Your task to perform on an android device: turn vacation reply on in the gmail app Image 0: 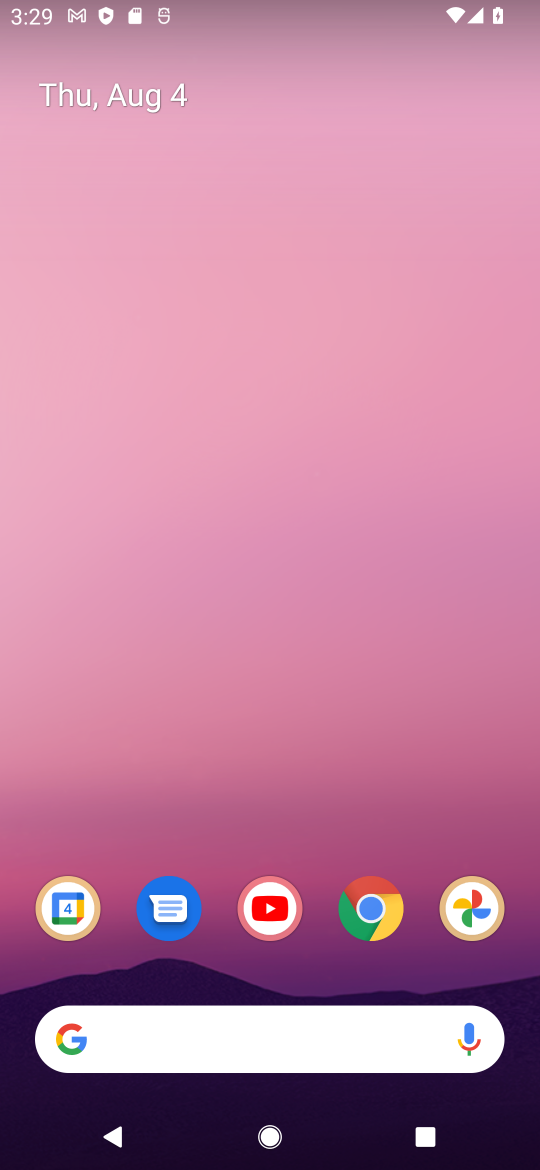
Step 0: drag from (348, 973) to (348, 290)
Your task to perform on an android device: turn vacation reply on in the gmail app Image 1: 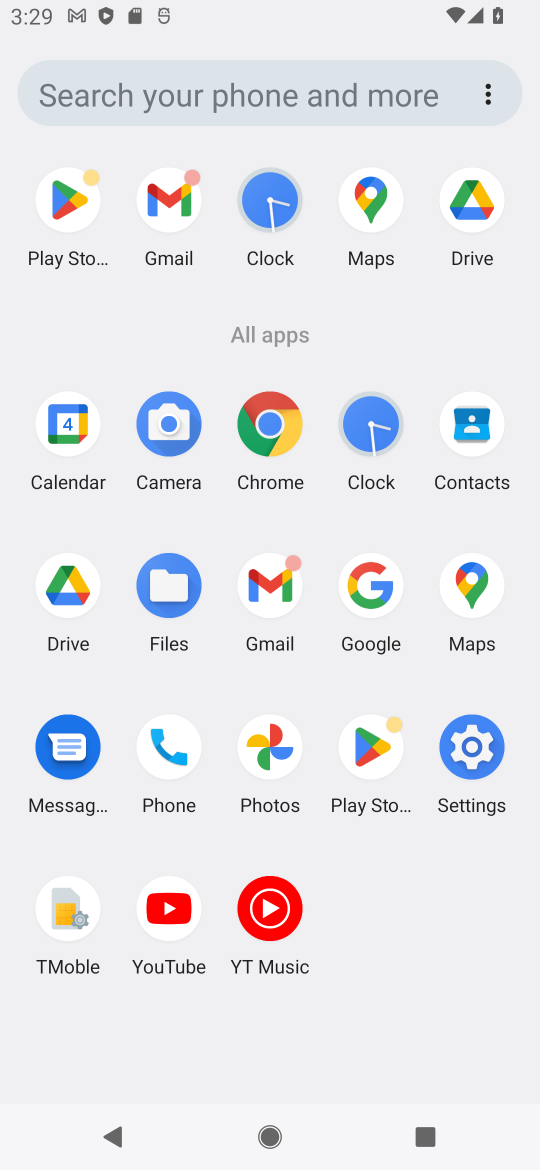
Step 1: click (264, 595)
Your task to perform on an android device: turn vacation reply on in the gmail app Image 2: 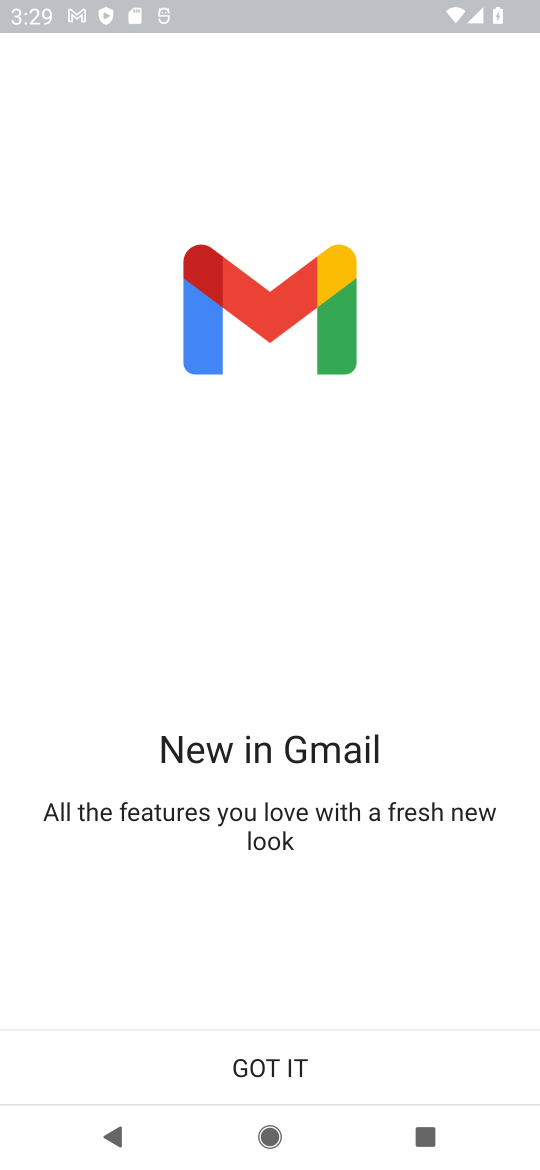
Step 2: click (394, 1082)
Your task to perform on an android device: turn vacation reply on in the gmail app Image 3: 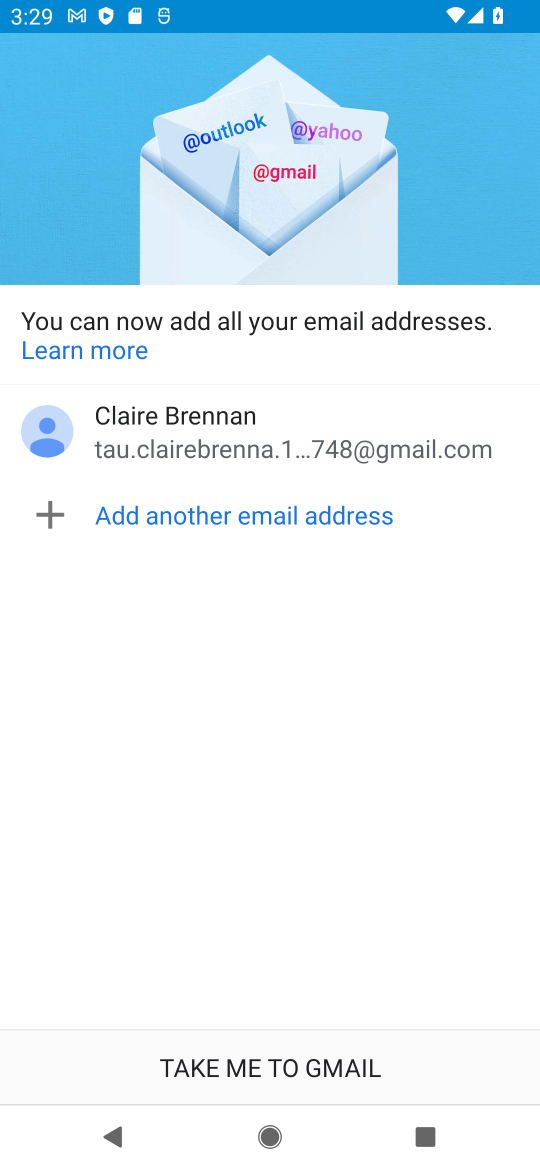
Step 3: click (394, 1082)
Your task to perform on an android device: turn vacation reply on in the gmail app Image 4: 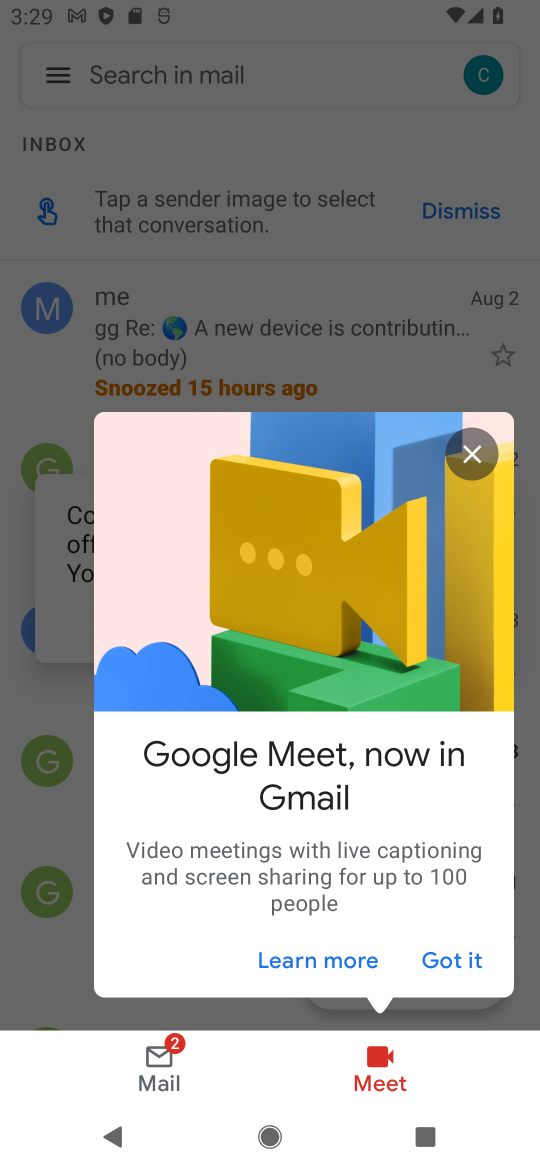
Step 4: click (465, 459)
Your task to perform on an android device: turn vacation reply on in the gmail app Image 5: 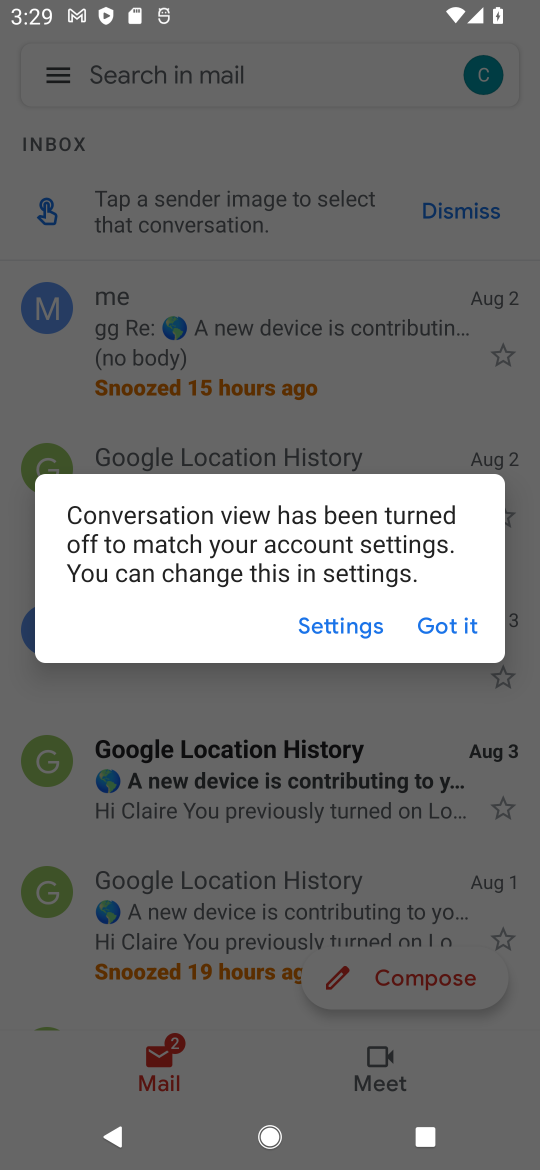
Step 5: click (455, 634)
Your task to perform on an android device: turn vacation reply on in the gmail app Image 6: 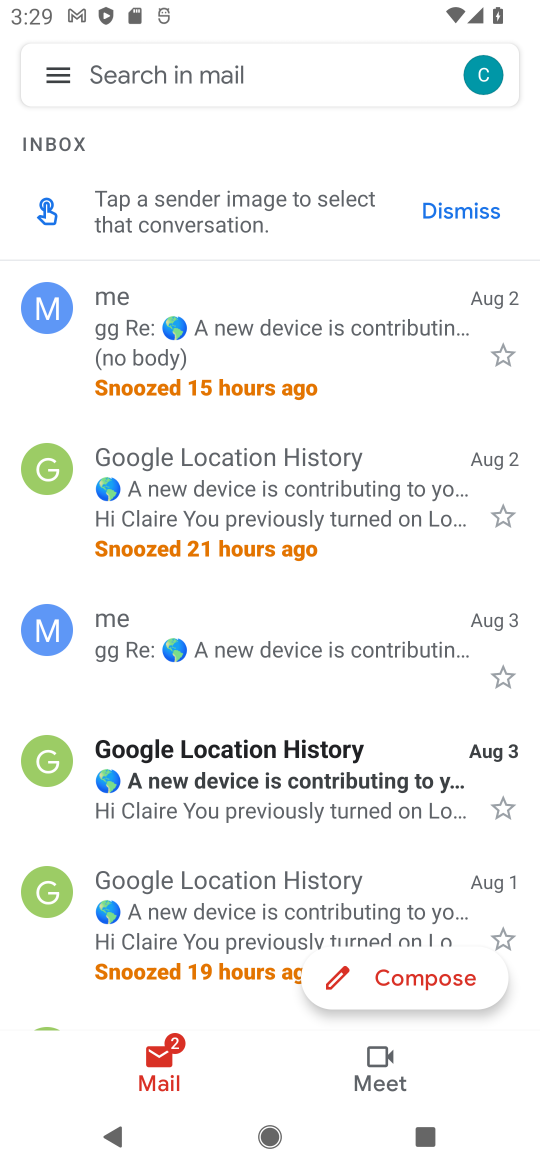
Step 6: click (52, 77)
Your task to perform on an android device: turn vacation reply on in the gmail app Image 7: 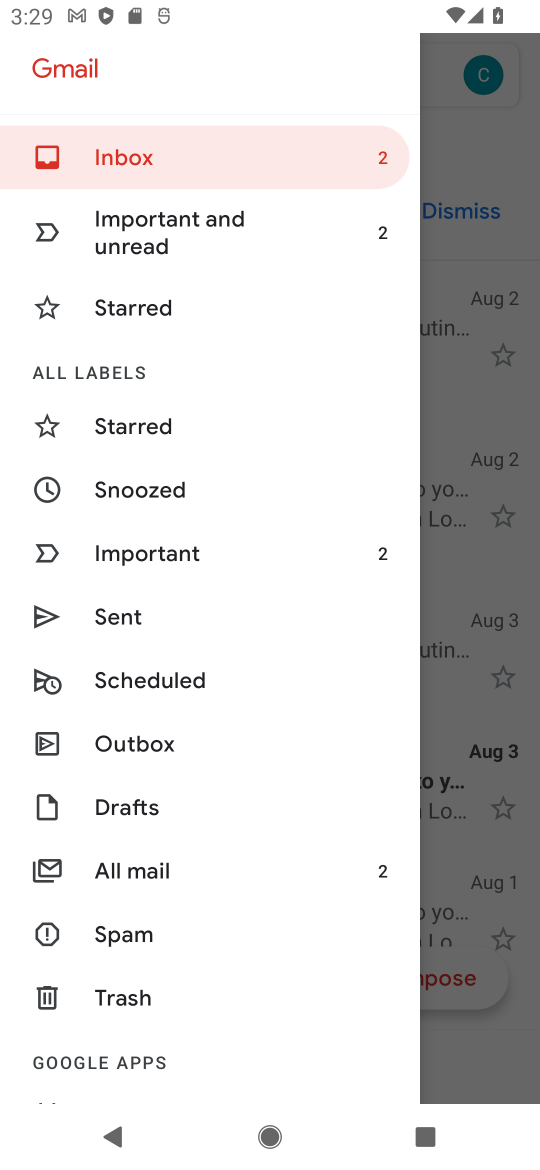
Step 7: drag from (248, 963) to (243, 498)
Your task to perform on an android device: turn vacation reply on in the gmail app Image 8: 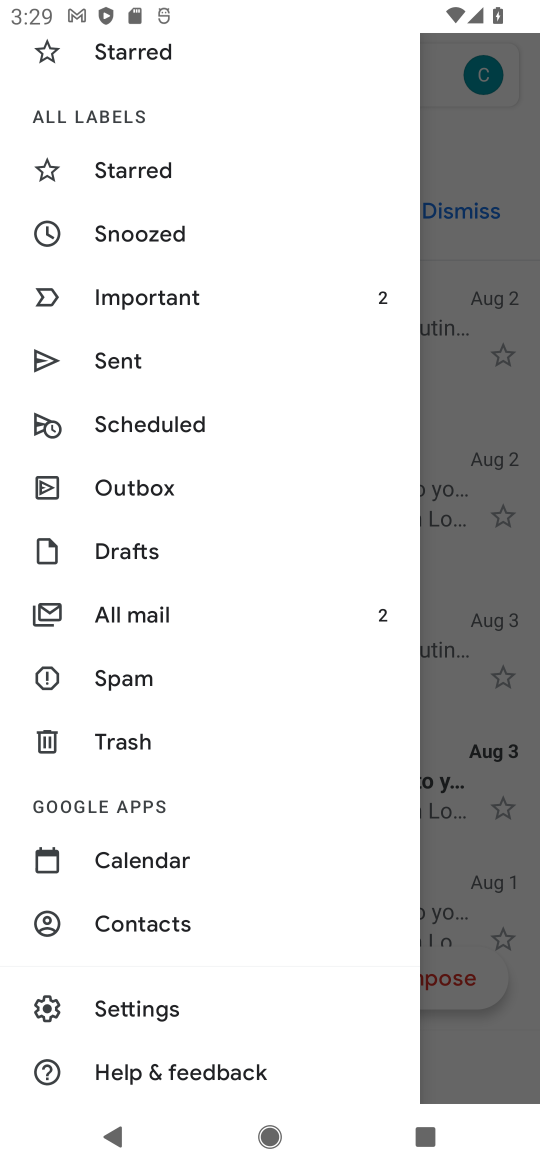
Step 8: click (237, 1019)
Your task to perform on an android device: turn vacation reply on in the gmail app Image 9: 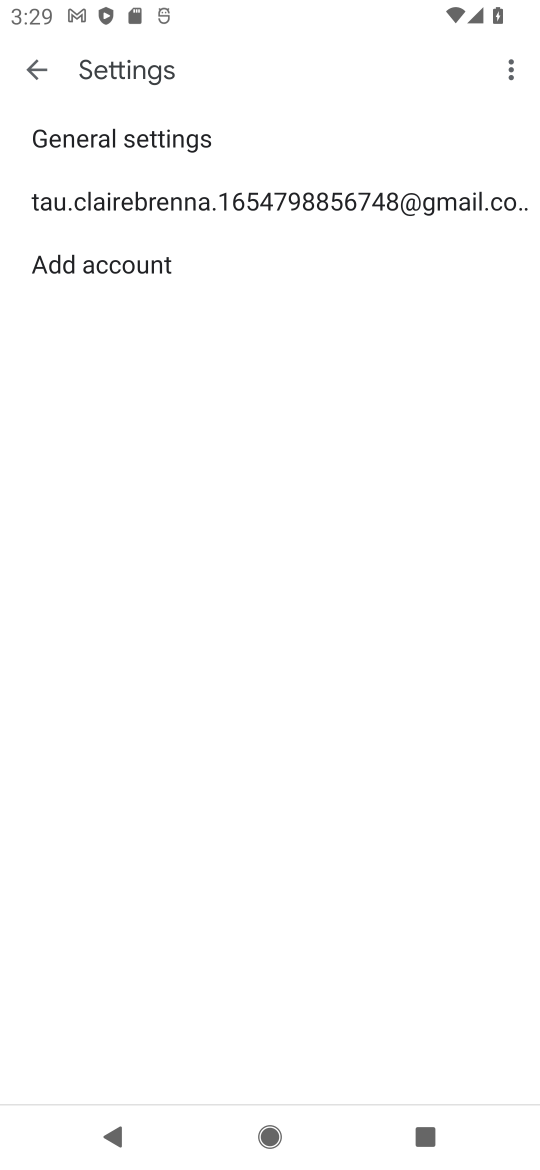
Step 9: click (348, 210)
Your task to perform on an android device: turn vacation reply on in the gmail app Image 10: 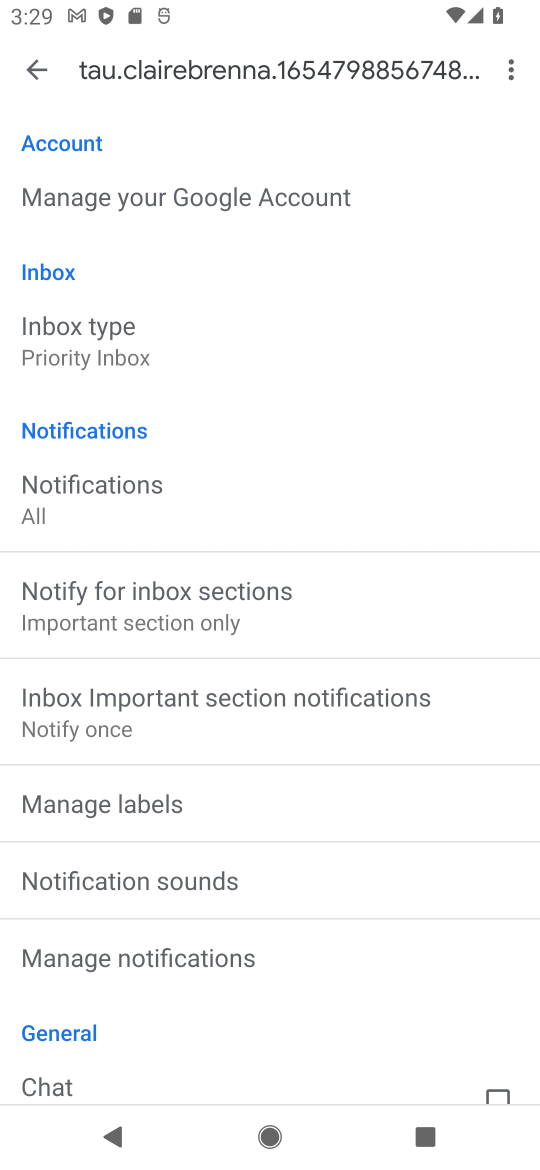
Step 10: drag from (177, 1006) to (190, 360)
Your task to perform on an android device: turn vacation reply on in the gmail app Image 11: 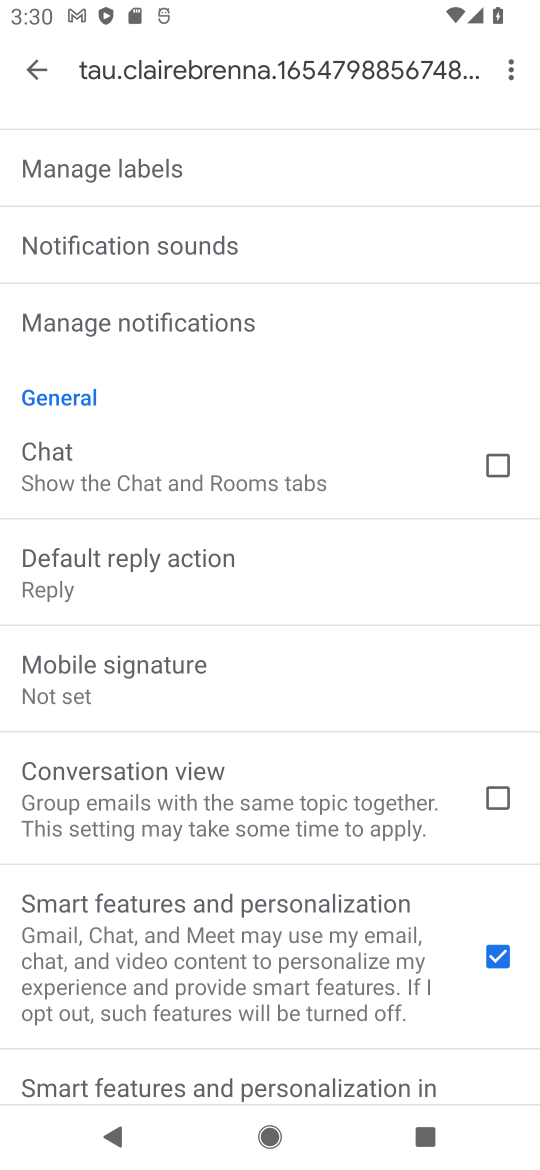
Step 11: drag from (228, 908) to (171, 247)
Your task to perform on an android device: turn vacation reply on in the gmail app Image 12: 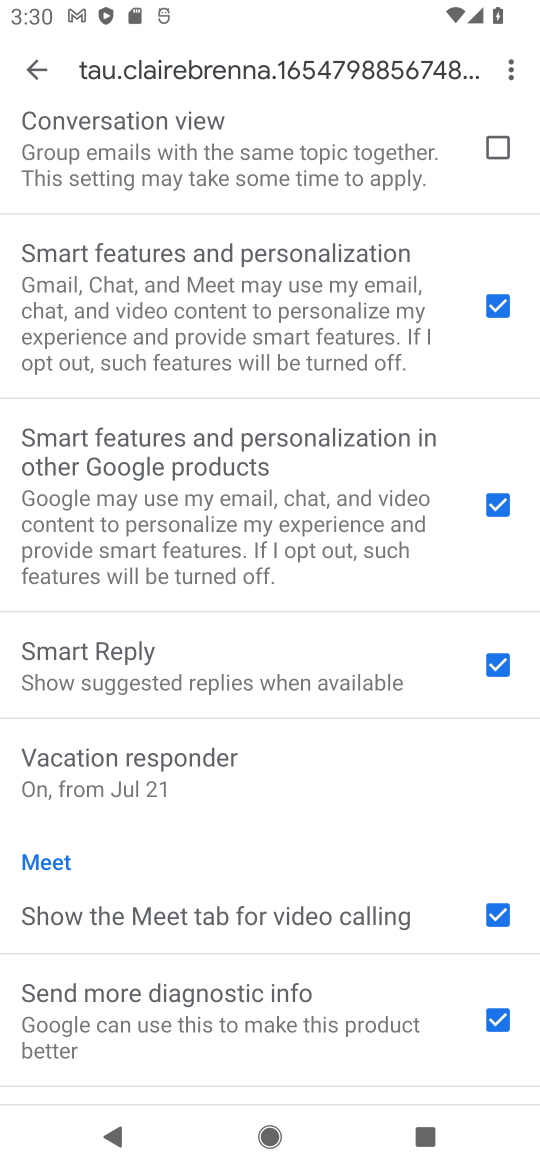
Step 12: click (193, 758)
Your task to perform on an android device: turn vacation reply on in the gmail app Image 13: 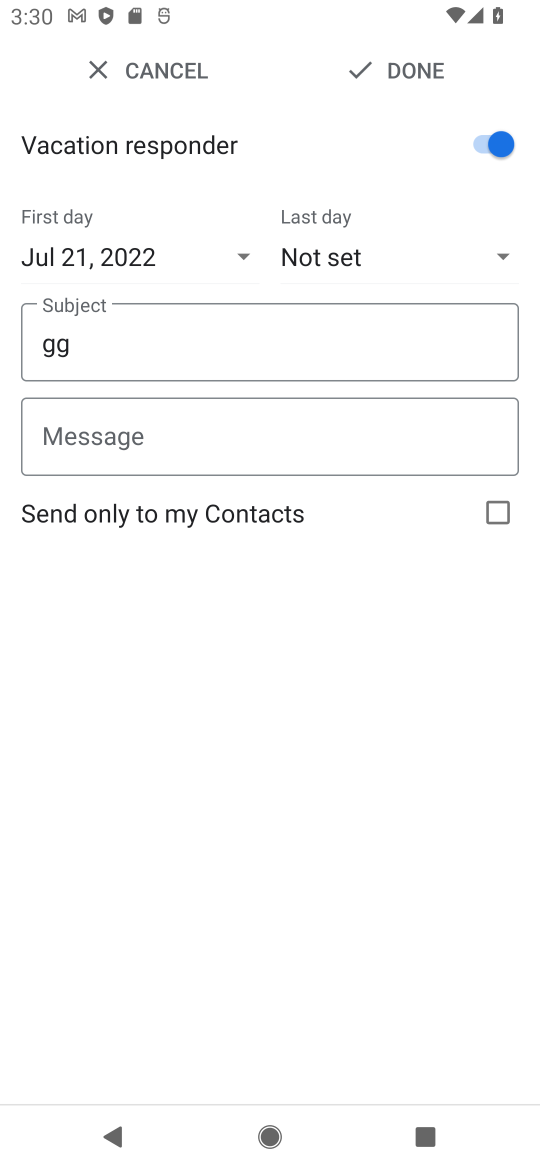
Step 13: click (414, 72)
Your task to perform on an android device: turn vacation reply on in the gmail app Image 14: 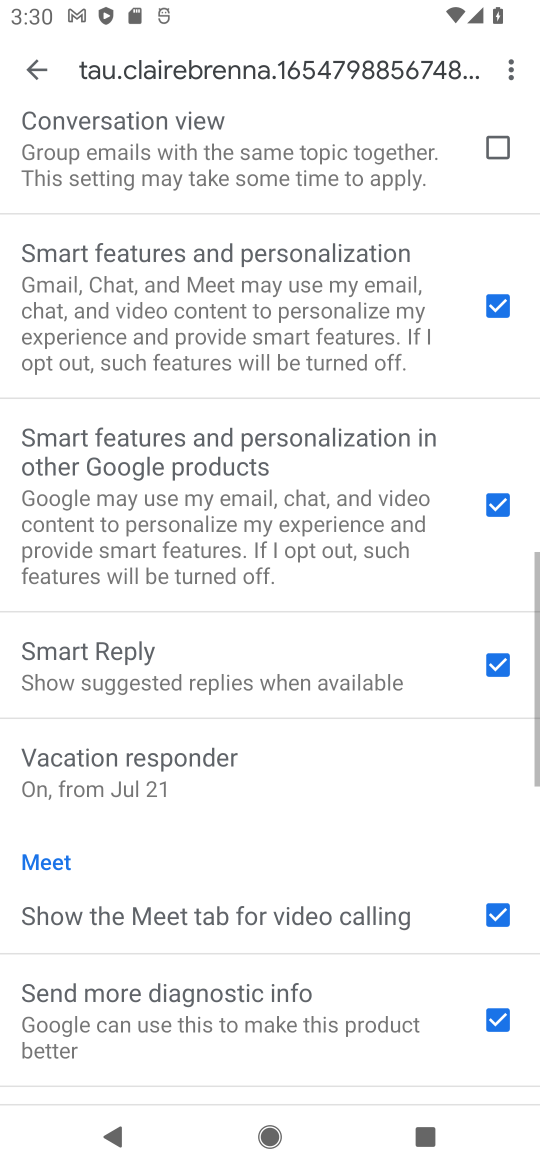
Step 14: task complete